Your task to perform on an android device: Check the weather Image 0: 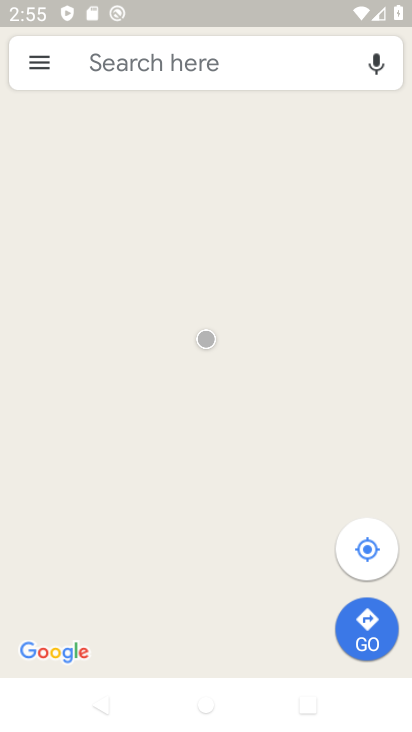
Step 0: press home button
Your task to perform on an android device: Check the weather Image 1: 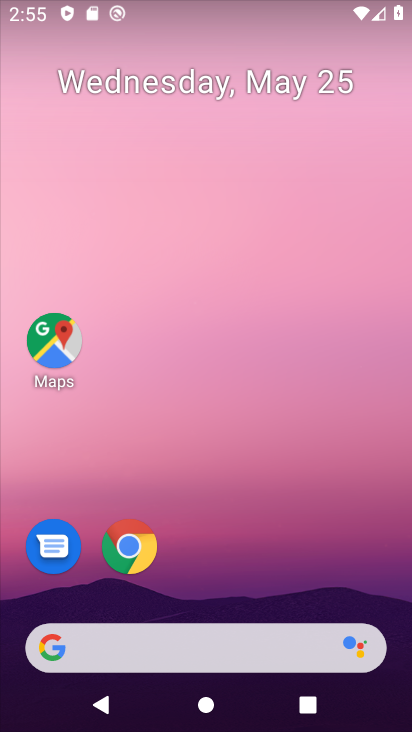
Step 1: click (140, 557)
Your task to perform on an android device: Check the weather Image 2: 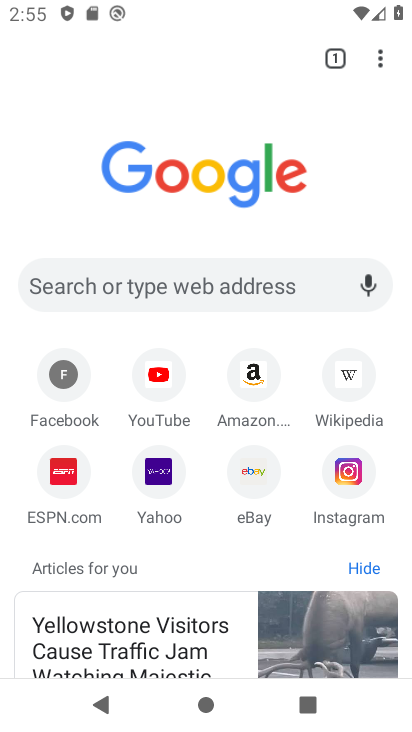
Step 2: click (223, 290)
Your task to perform on an android device: Check the weather Image 3: 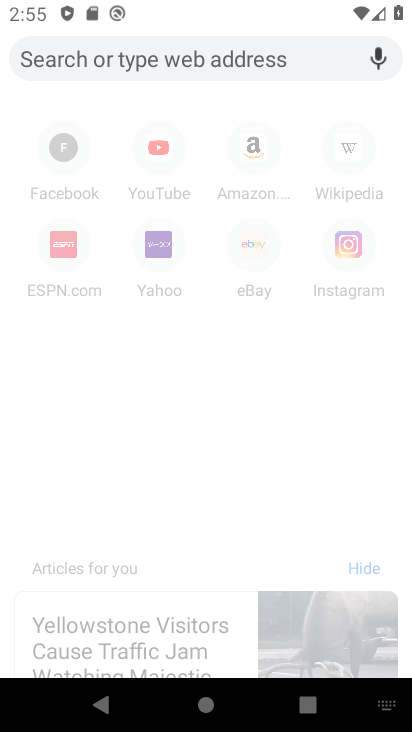
Step 3: type "check the weather"
Your task to perform on an android device: Check the weather Image 4: 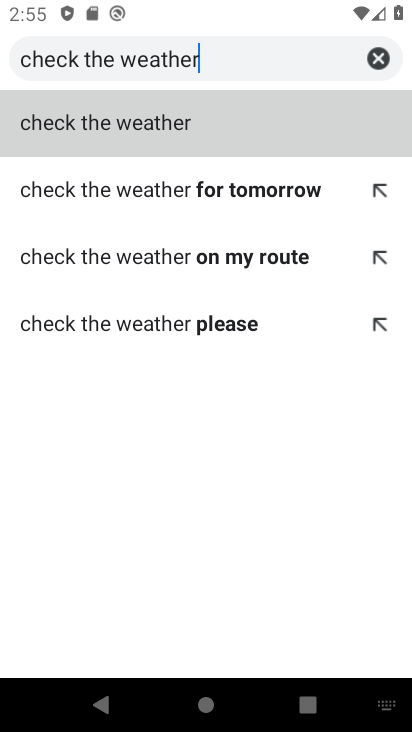
Step 4: click (77, 127)
Your task to perform on an android device: Check the weather Image 5: 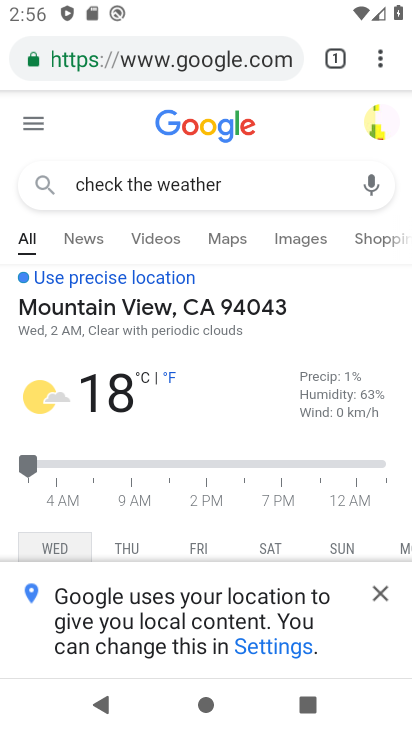
Step 5: drag from (78, 411) to (79, 165)
Your task to perform on an android device: Check the weather Image 6: 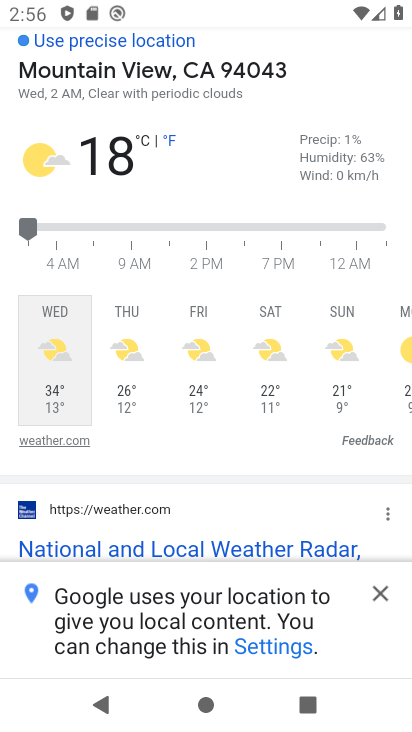
Step 6: click (383, 593)
Your task to perform on an android device: Check the weather Image 7: 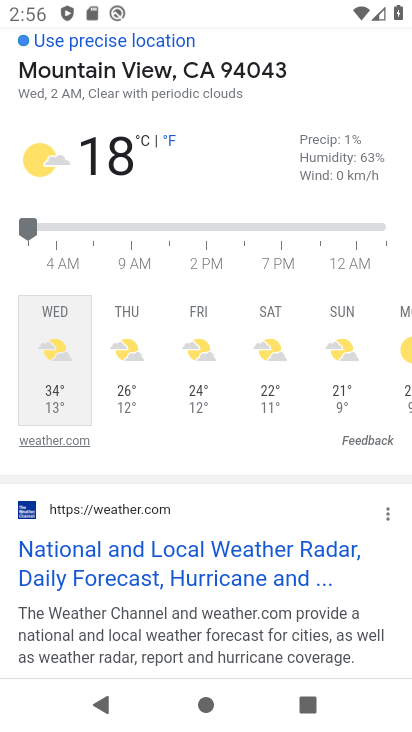
Step 7: task complete